Your task to perform on an android device: Open settings Image 0: 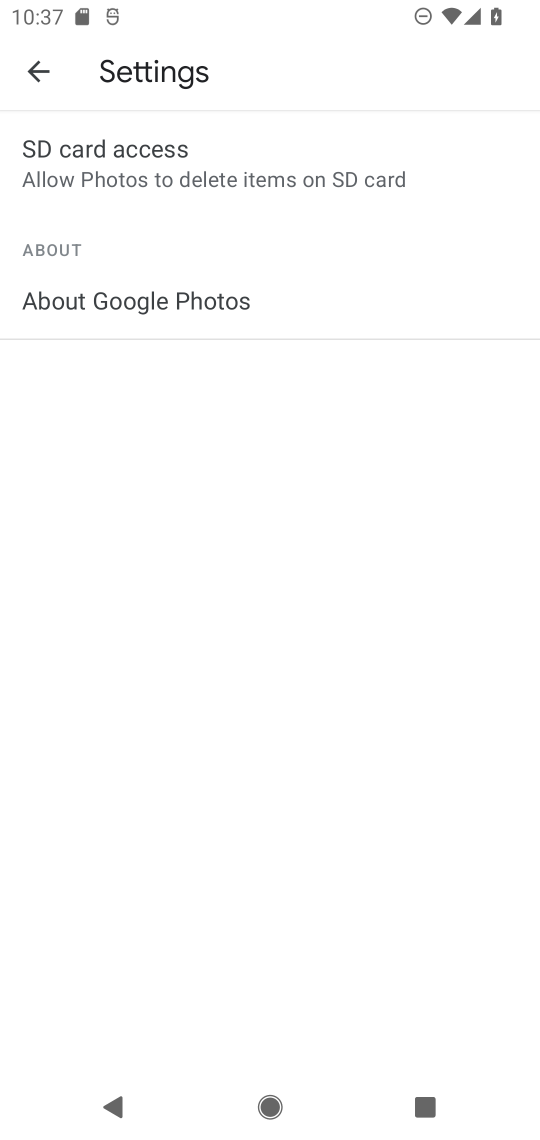
Step 0: press back button
Your task to perform on an android device: Open settings Image 1: 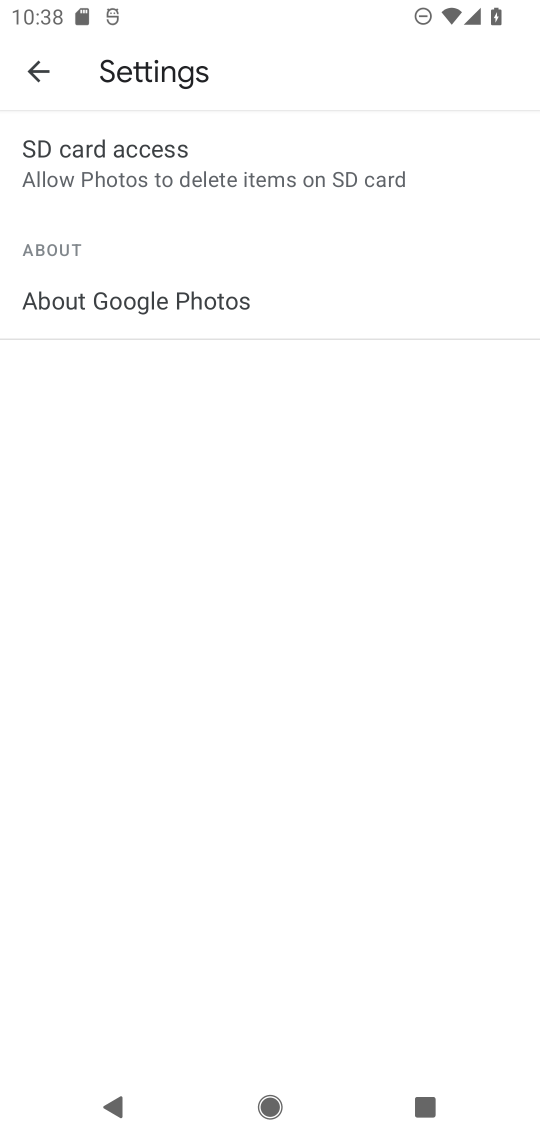
Step 1: press back button
Your task to perform on an android device: Open settings Image 2: 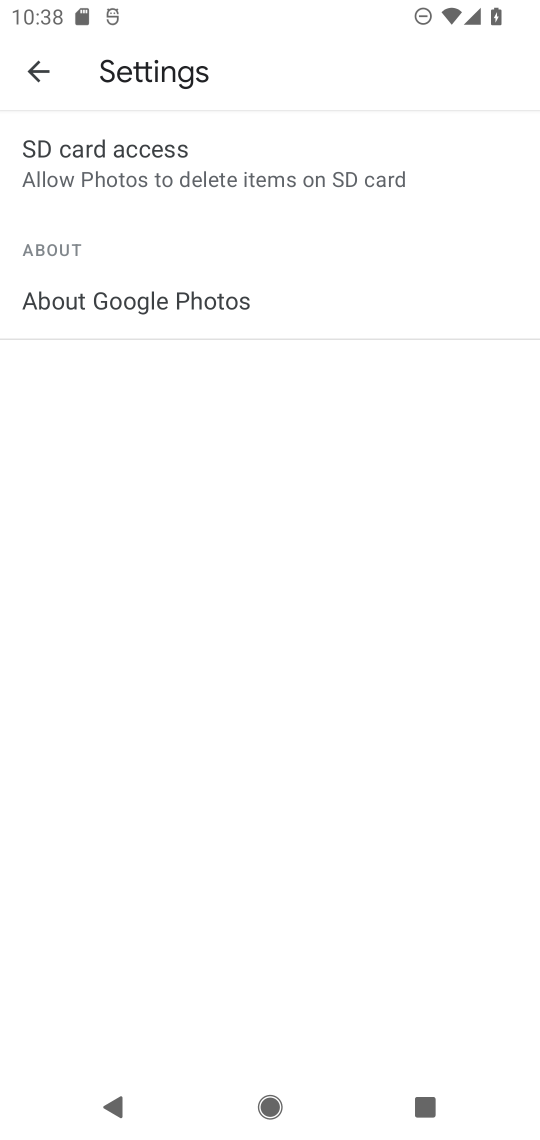
Step 2: press home button
Your task to perform on an android device: Open settings Image 3: 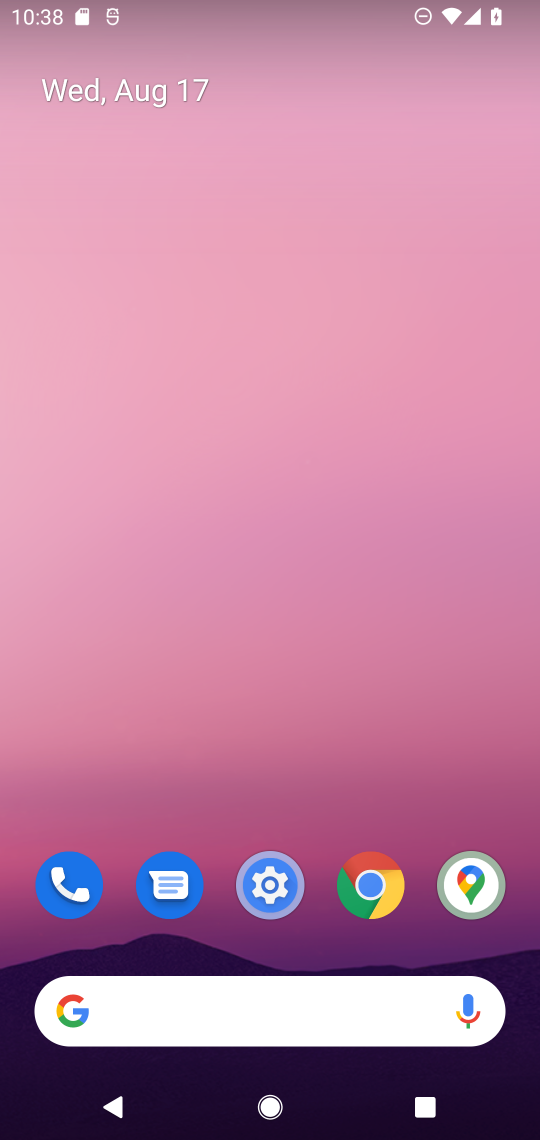
Step 3: click (269, 883)
Your task to perform on an android device: Open settings Image 4: 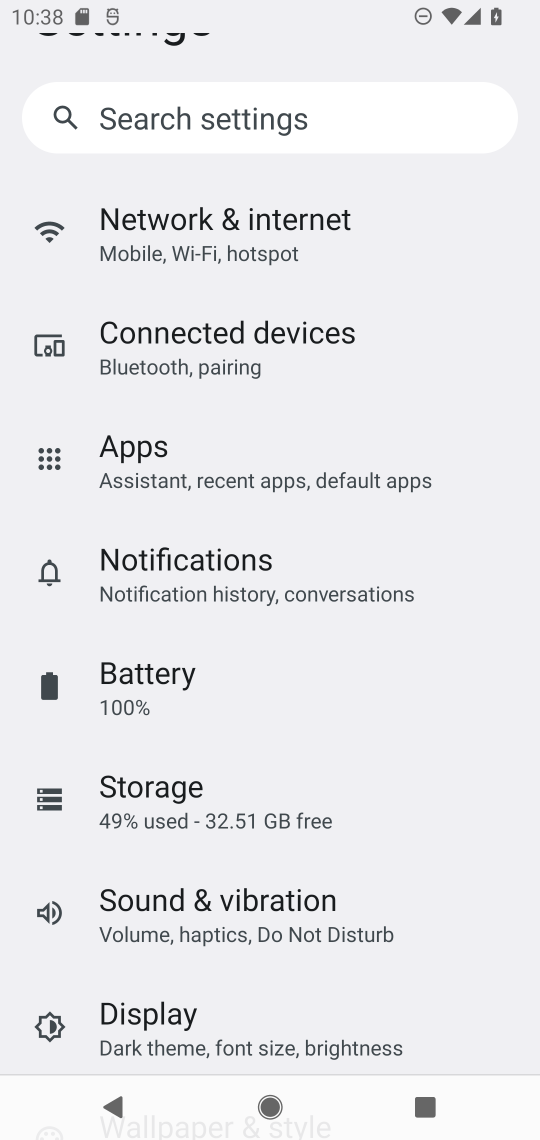
Step 4: task complete